Your task to perform on an android device: turn on data saver in the chrome app Image 0: 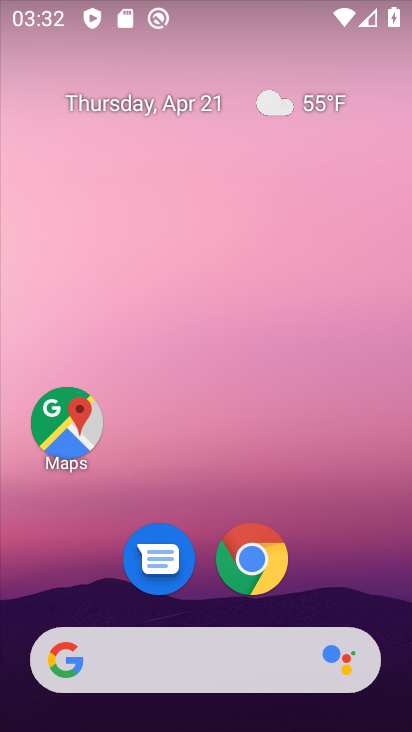
Step 0: drag from (340, 564) to (317, 341)
Your task to perform on an android device: turn on data saver in the chrome app Image 1: 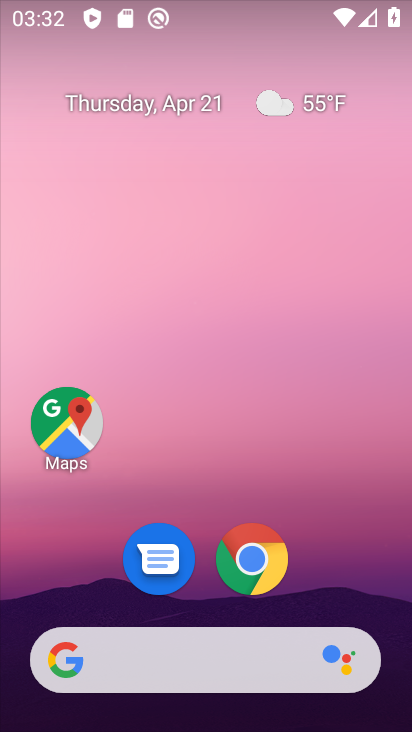
Step 1: click (273, 555)
Your task to perform on an android device: turn on data saver in the chrome app Image 2: 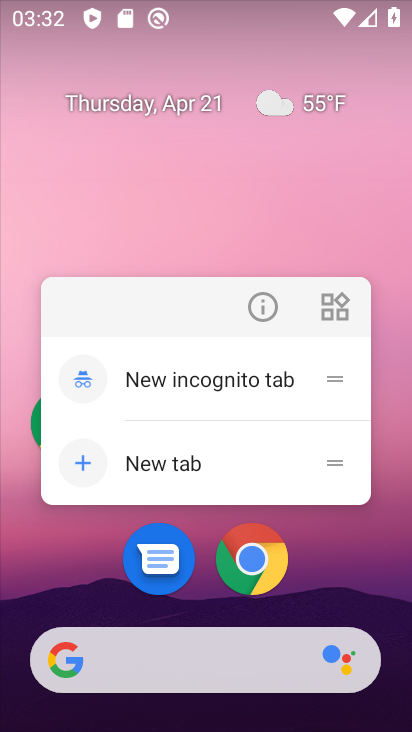
Step 2: click (253, 566)
Your task to perform on an android device: turn on data saver in the chrome app Image 3: 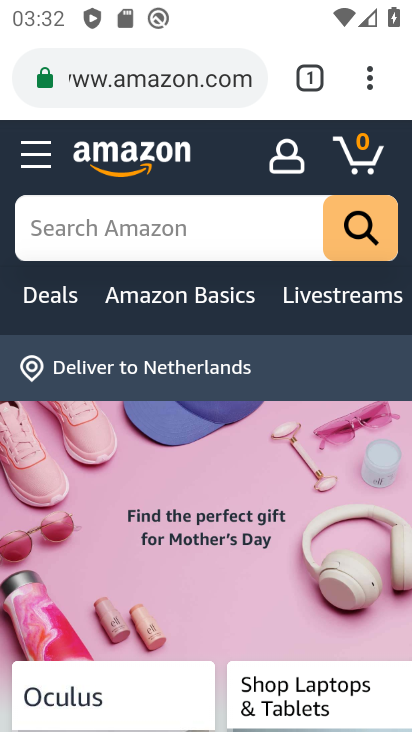
Step 3: click (364, 93)
Your task to perform on an android device: turn on data saver in the chrome app Image 4: 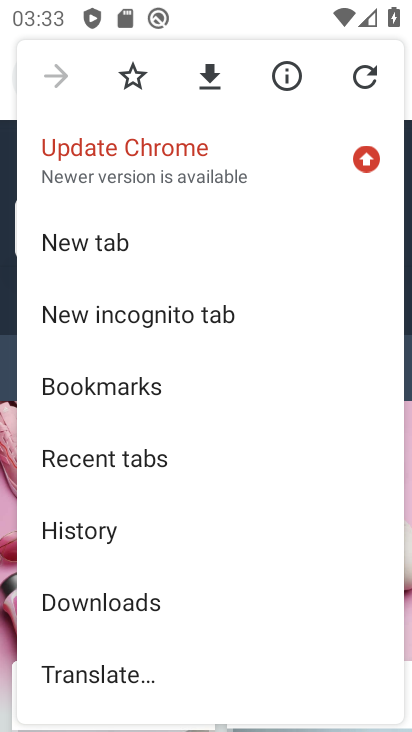
Step 4: drag from (266, 608) to (242, 174)
Your task to perform on an android device: turn on data saver in the chrome app Image 5: 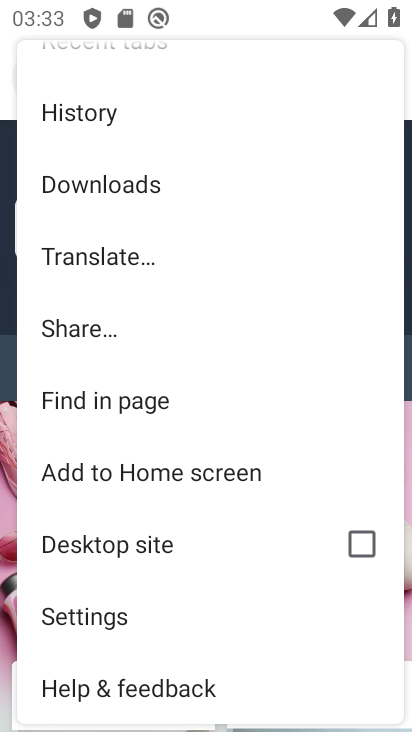
Step 5: drag from (251, 583) to (244, 223)
Your task to perform on an android device: turn on data saver in the chrome app Image 6: 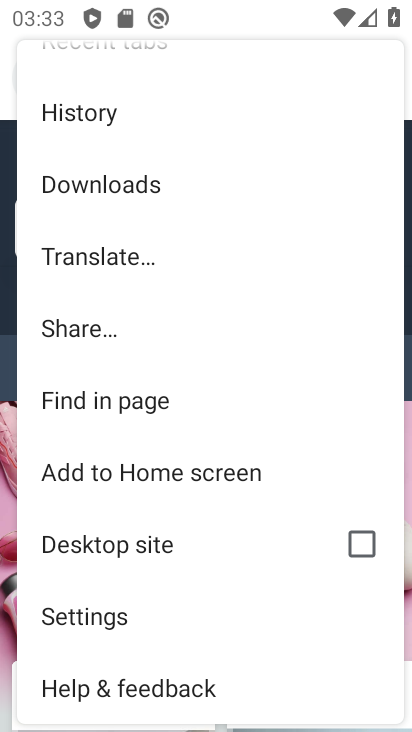
Step 6: click (147, 613)
Your task to perform on an android device: turn on data saver in the chrome app Image 7: 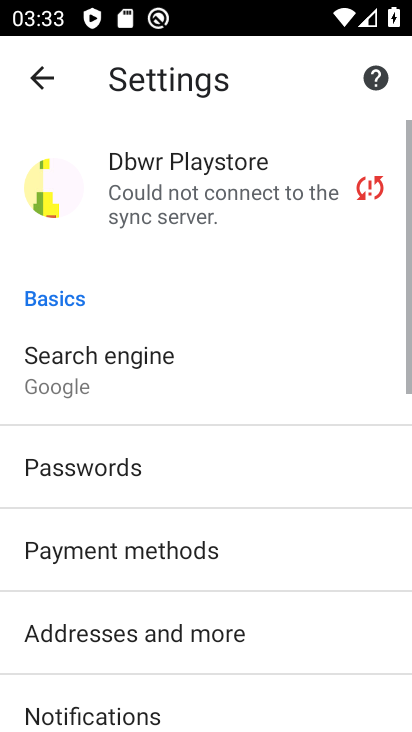
Step 7: drag from (202, 377) to (199, 257)
Your task to perform on an android device: turn on data saver in the chrome app Image 8: 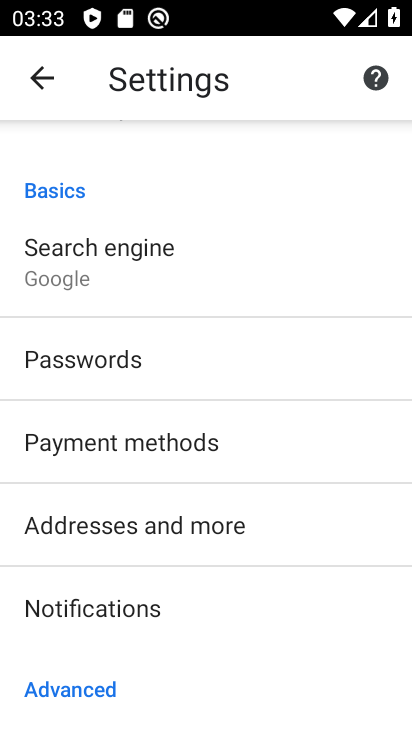
Step 8: drag from (260, 624) to (207, 61)
Your task to perform on an android device: turn on data saver in the chrome app Image 9: 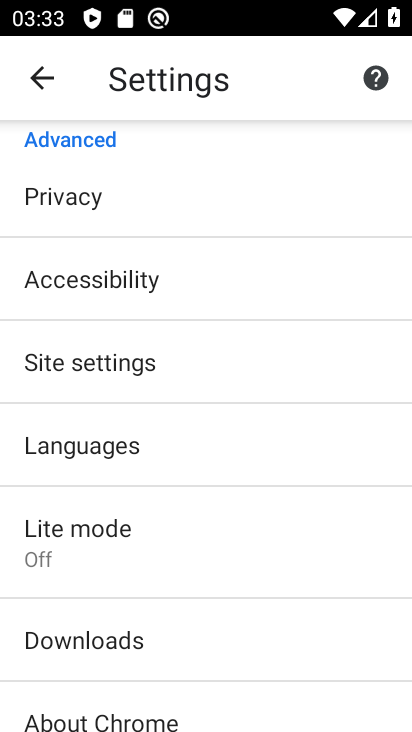
Step 9: drag from (304, 599) to (272, 320)
Your task to perform on an android device: turn on data saver in the chrome app Image 10: 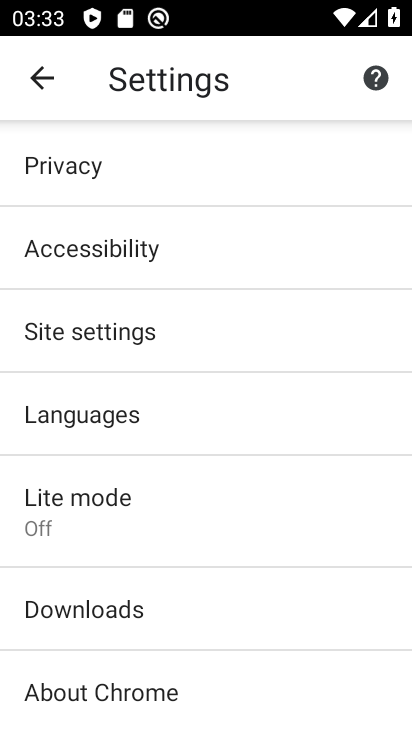
Step 10: click (185, 520)
Your task to perform on an android device: turn on data saver in the chrome app Image 11: 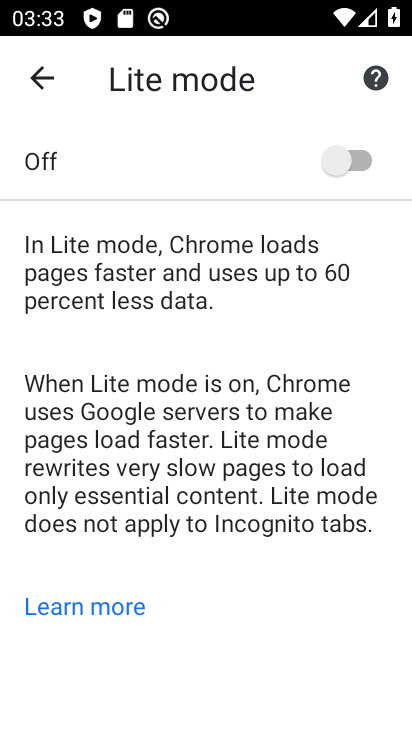
Step 11: click (340, 158)
Your task to perform on an android device: turn on data saver in the chrome app Image 12: 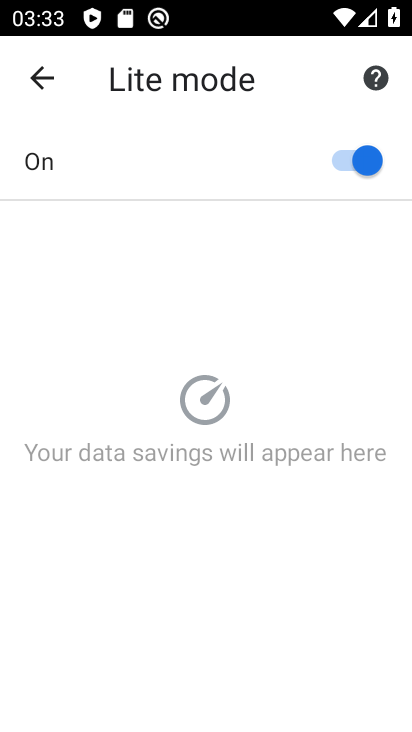
Step 12: task complete